Your task to perform on an android device: Add "macbook air" to the cart on costco Image 0: 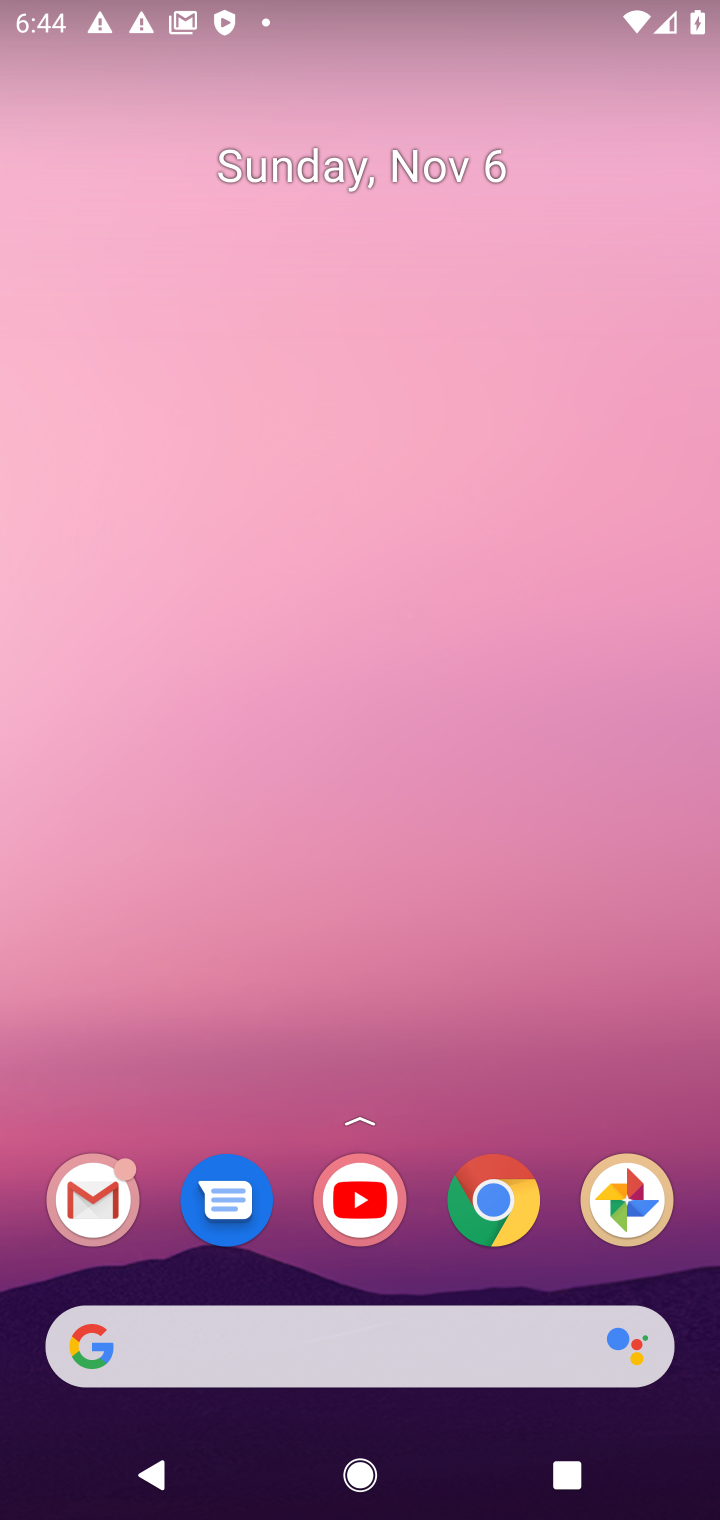
Step 0: drag from (407, 1219) to (422, 119)
Your task to perform on an android device: Add "macbook air" to the cart on costco Image 1: 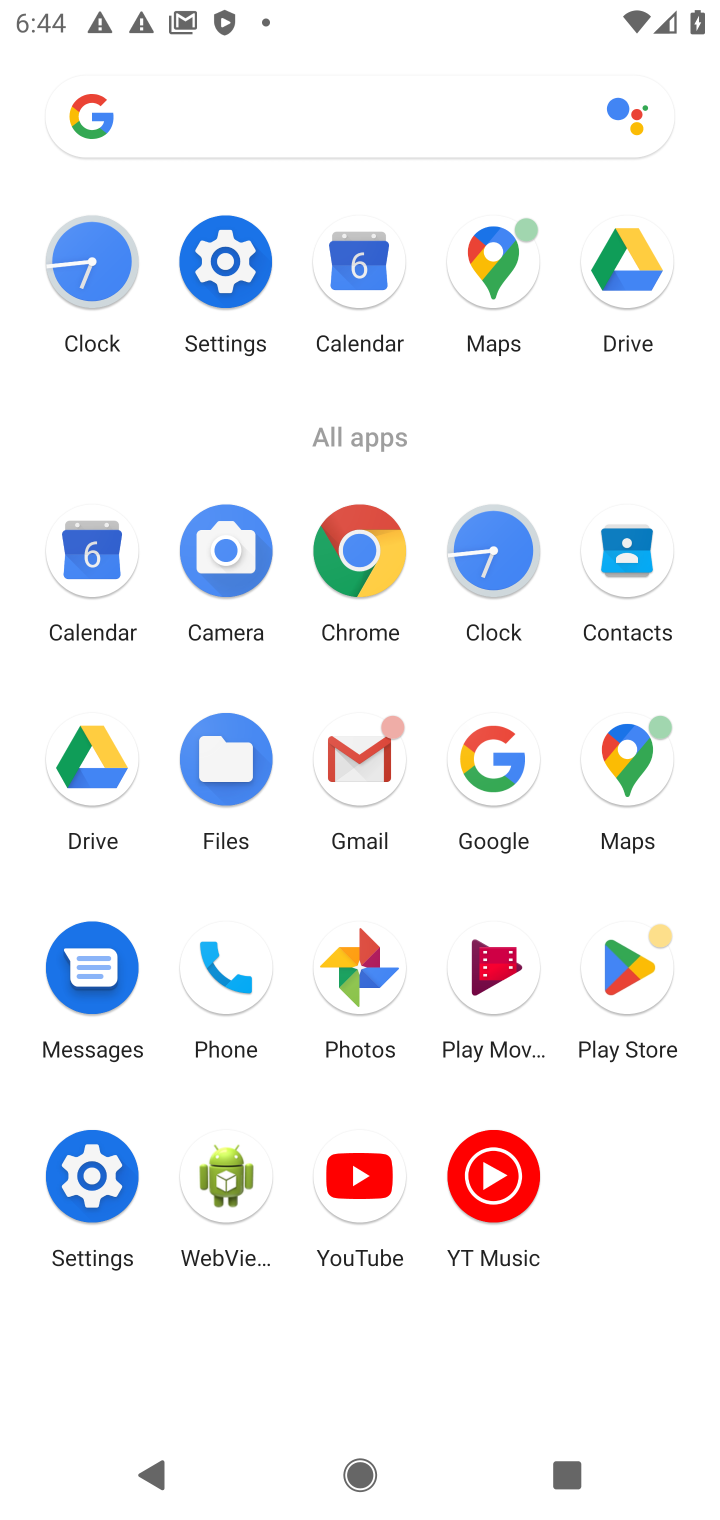
Step 1: click (495, 748)
Your task to perform on an android device: Add "macbook air" to the cart on costco Image 2: 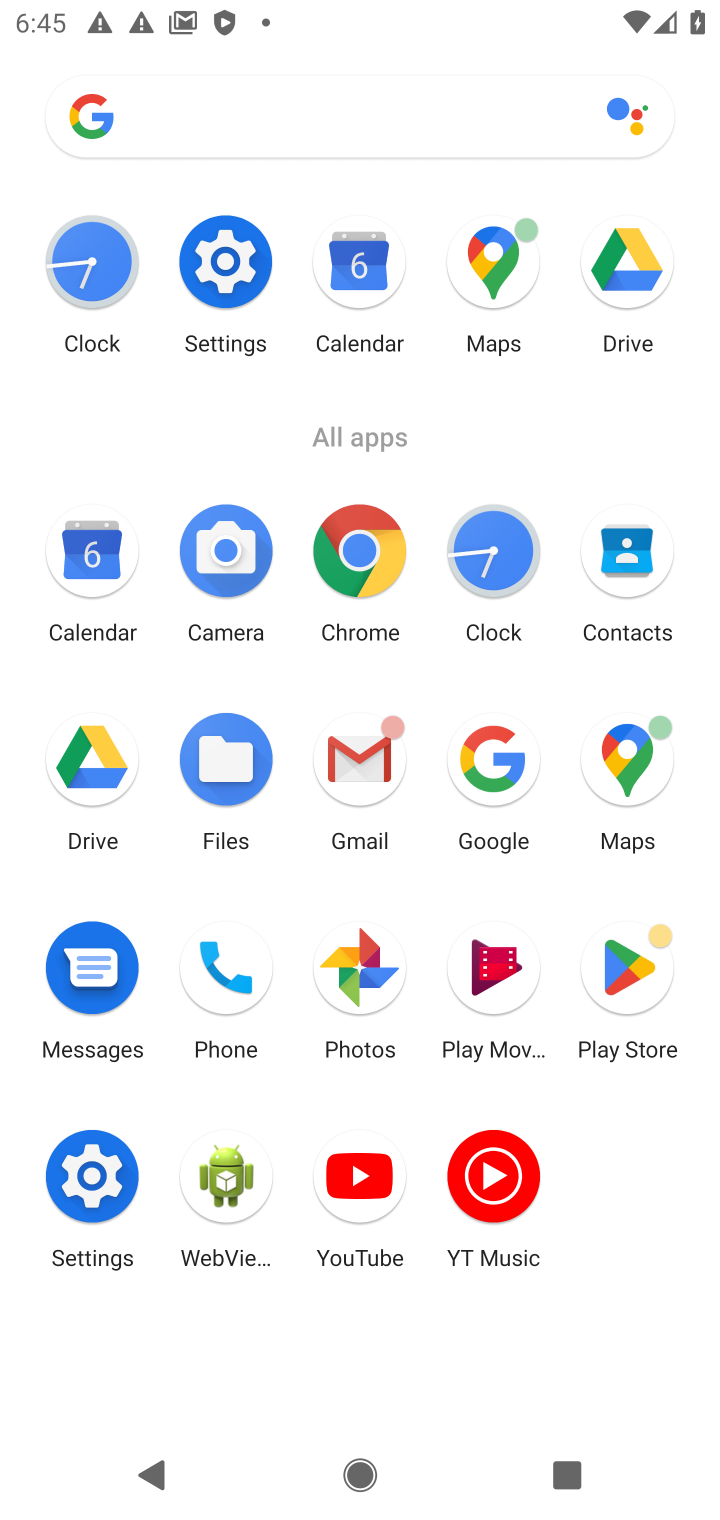
Step 2: click (491, 749)
Your task to perform on an android device: Add "macbook air" to the cart on costco Image 3: 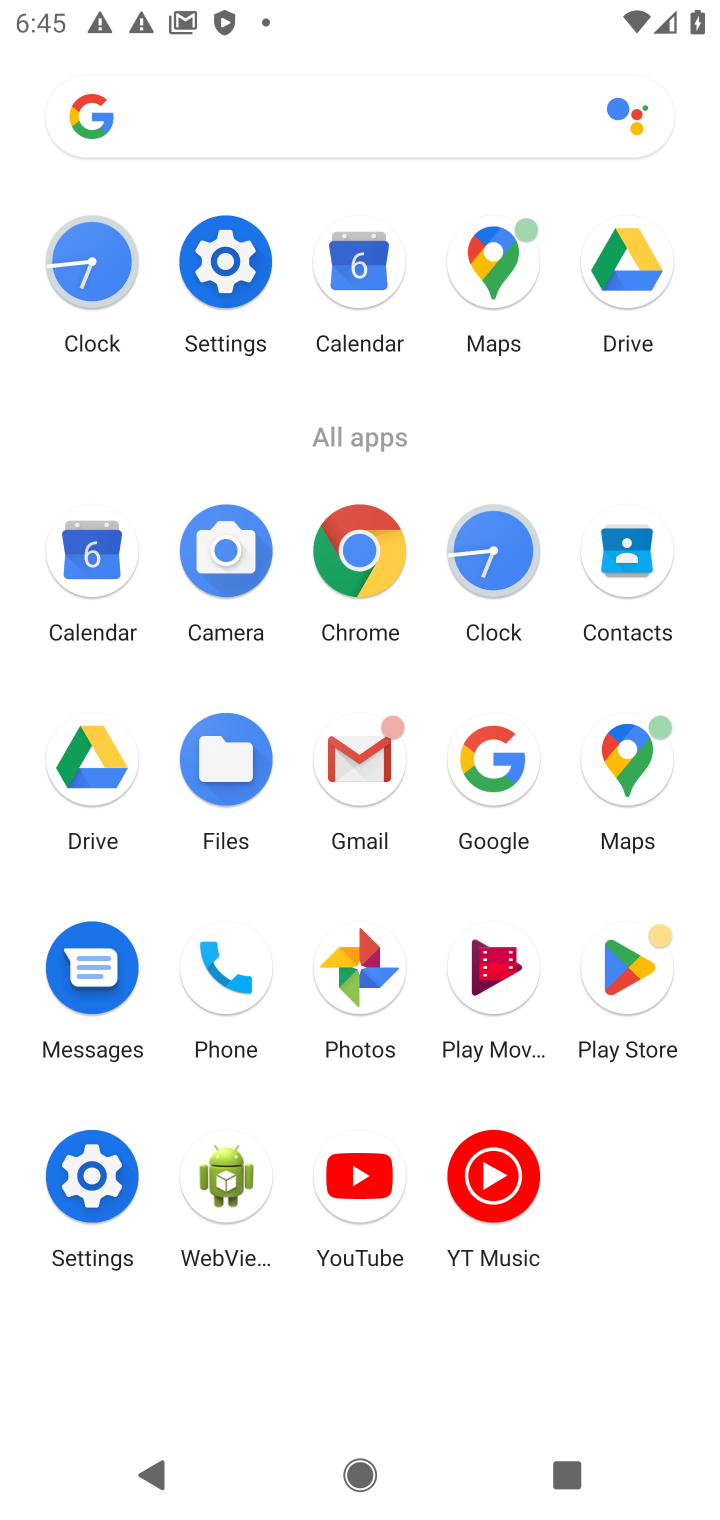
Step 3: click (491, 749)
Your task to perform on an android device: Add "macbook air" to the cart on costco Image 4: 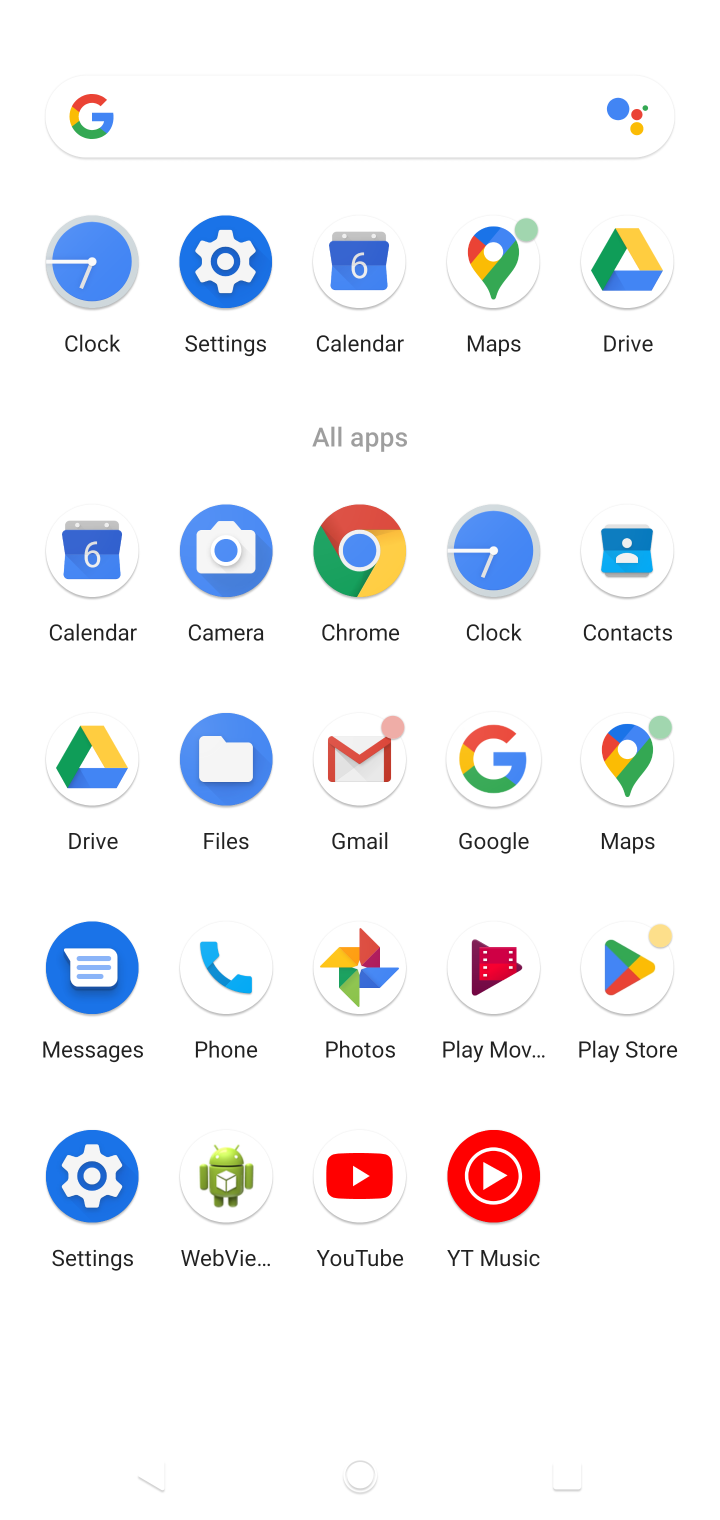
Step 4: click (491, 749)
Your task to perform on an android device: Add "macbook air" to the cart on costco Image 5: 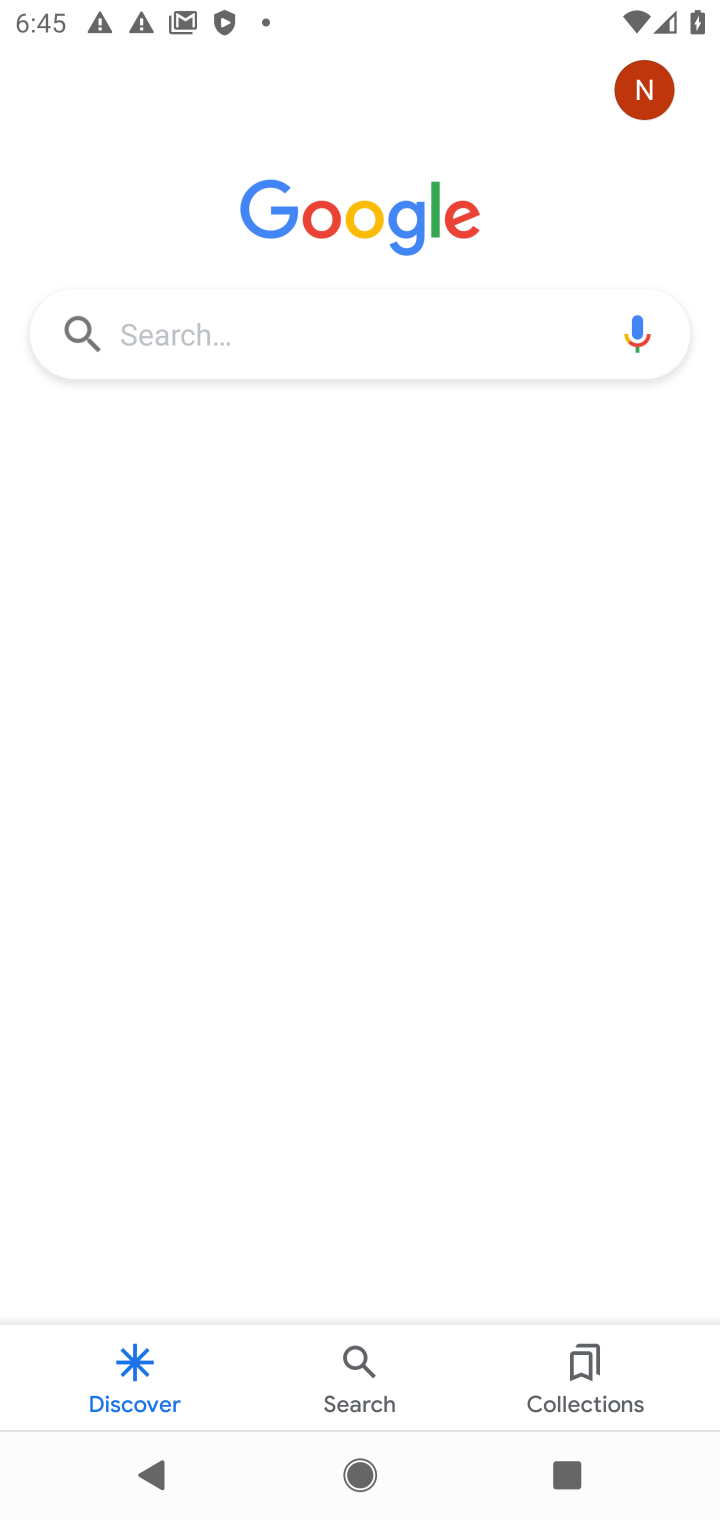
Step 5: click (335, 340)
Your task to perform on an android device: Add "macbook air" to the cart on costco Image 6: 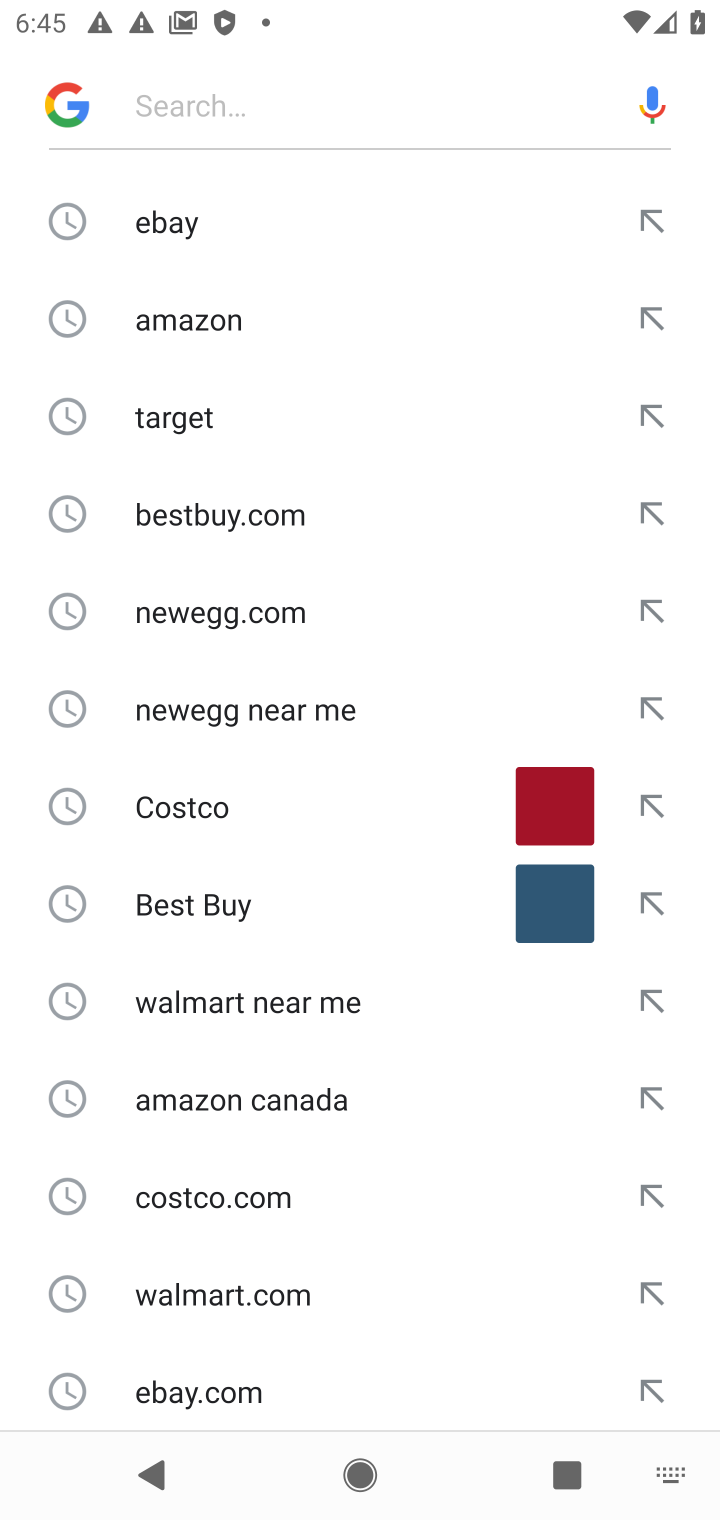
Step 6: type "costco "
Your task to perform on an android device: Add "macbook air" to the cart on costco Image 7: 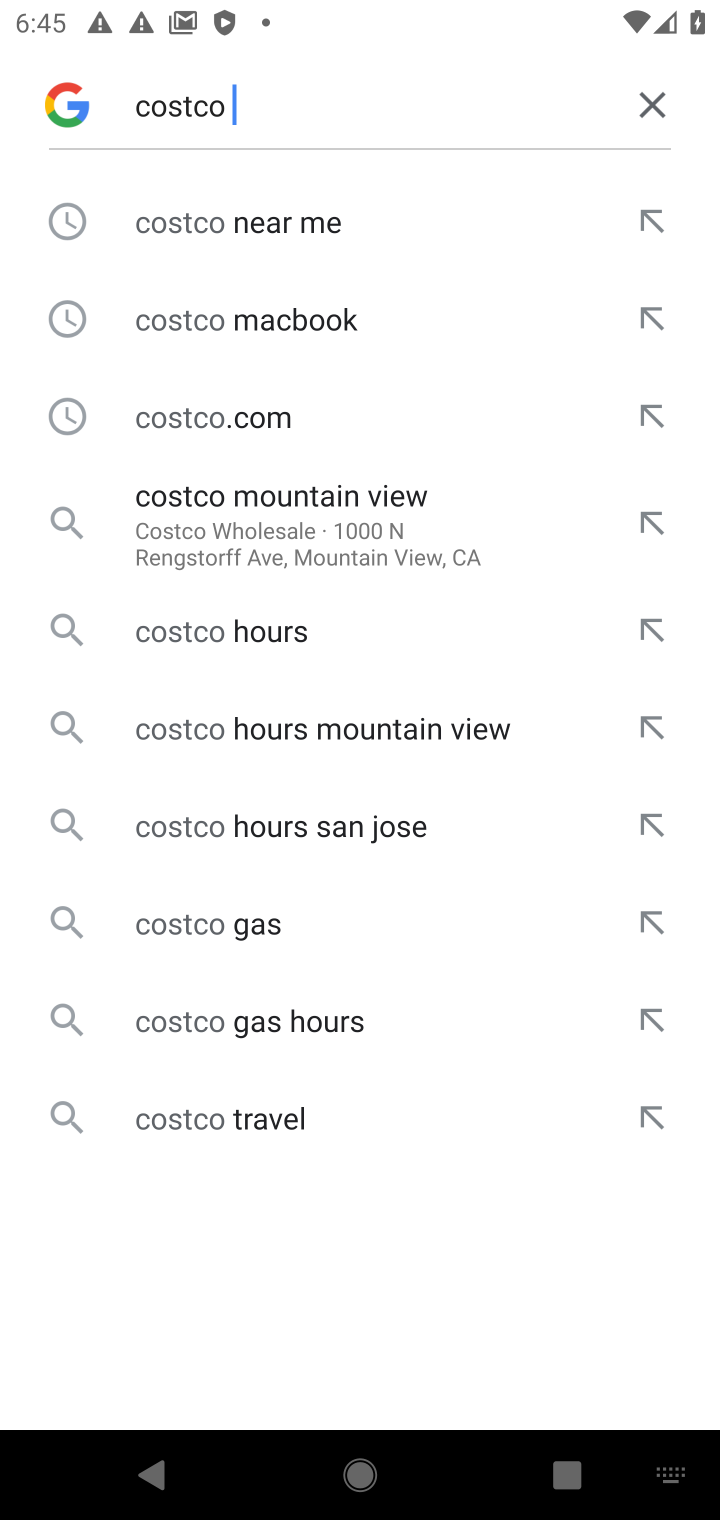
Step 7: click (215, 222)
Your task to perform on an android device: Add "macbook air" to the cart on costco Image 8: 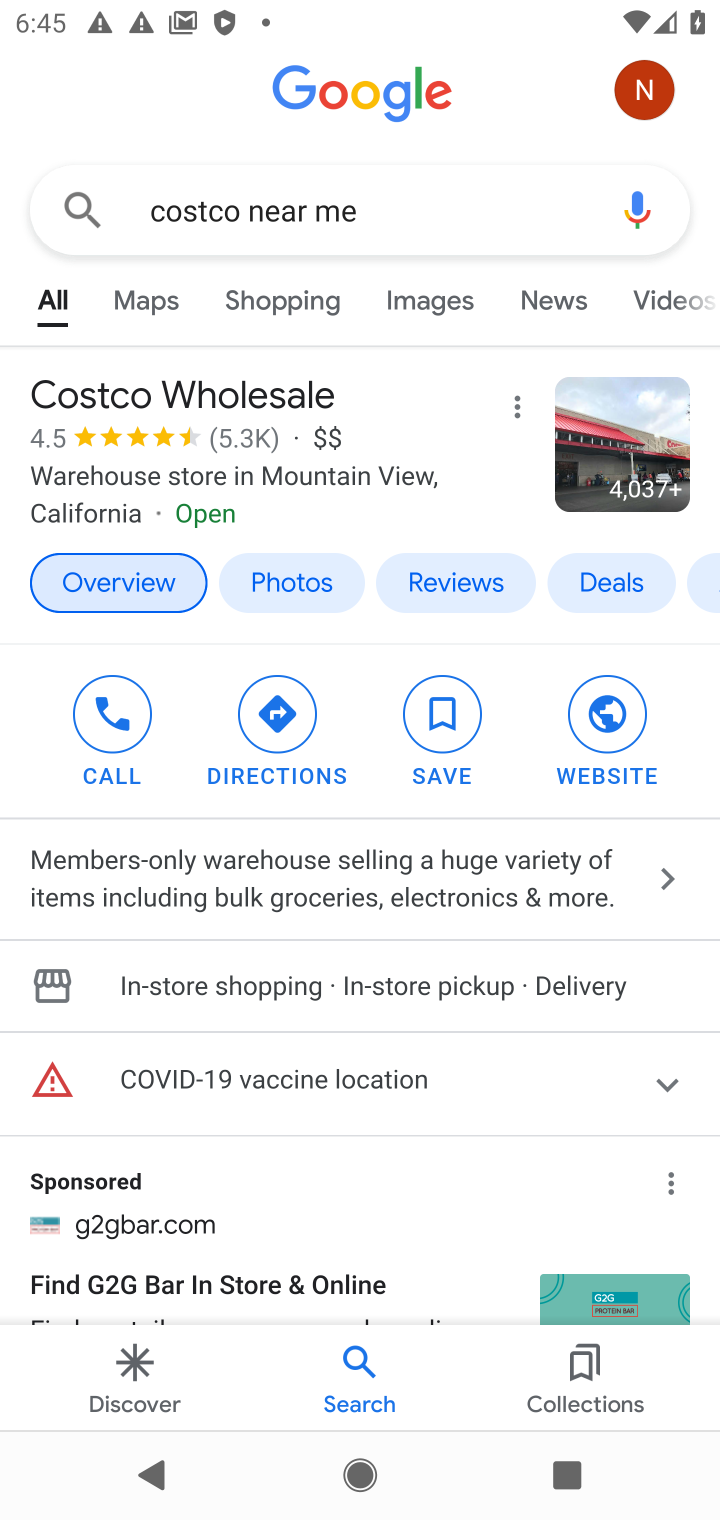
Step 8: drag from (295, 1243) to (396, 456)
Your task to perform on an android device: Add "macbook air" to the cart on costco Image 9: 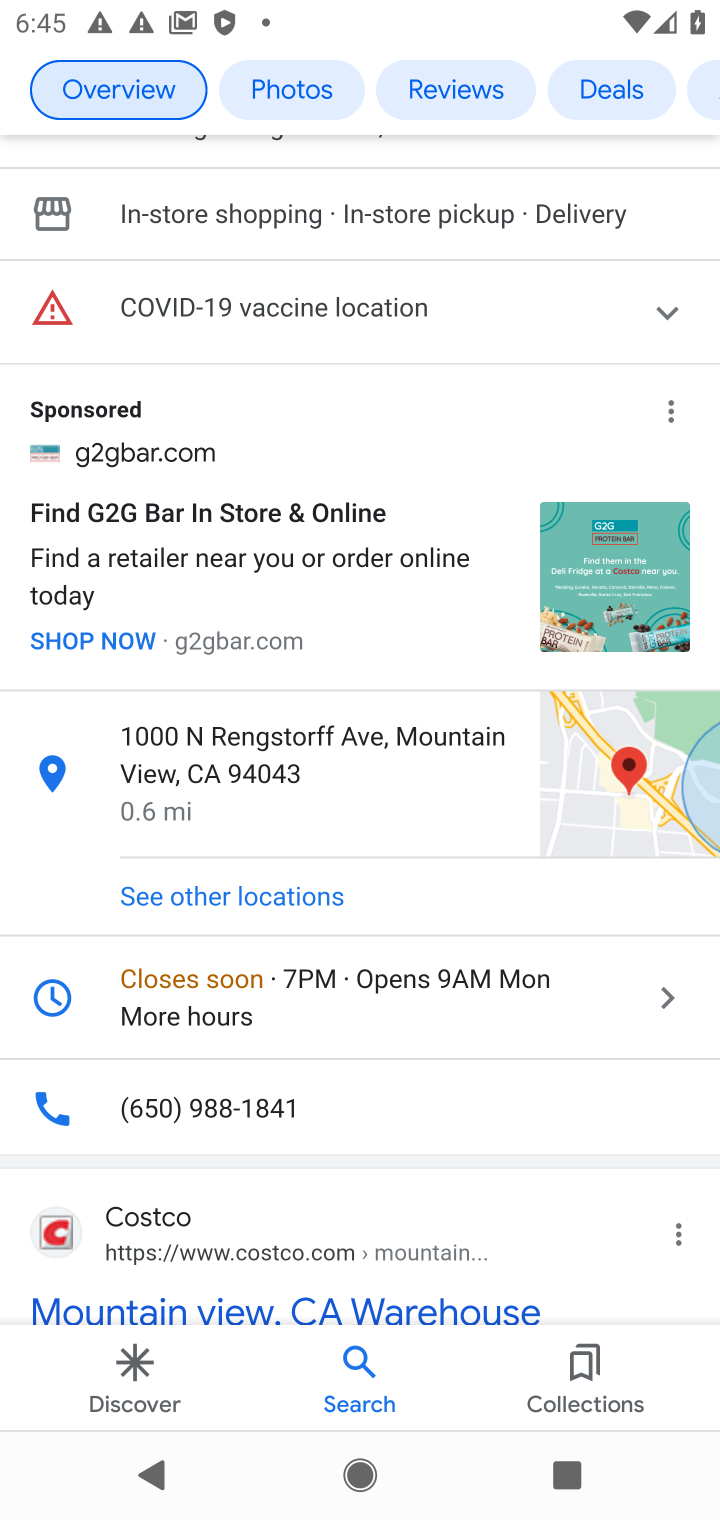
Step 9: drag from (232, 1142) to (282, 651)
Your task to perform on an android device: Add "macbook air" to the cart on costco Image 10: 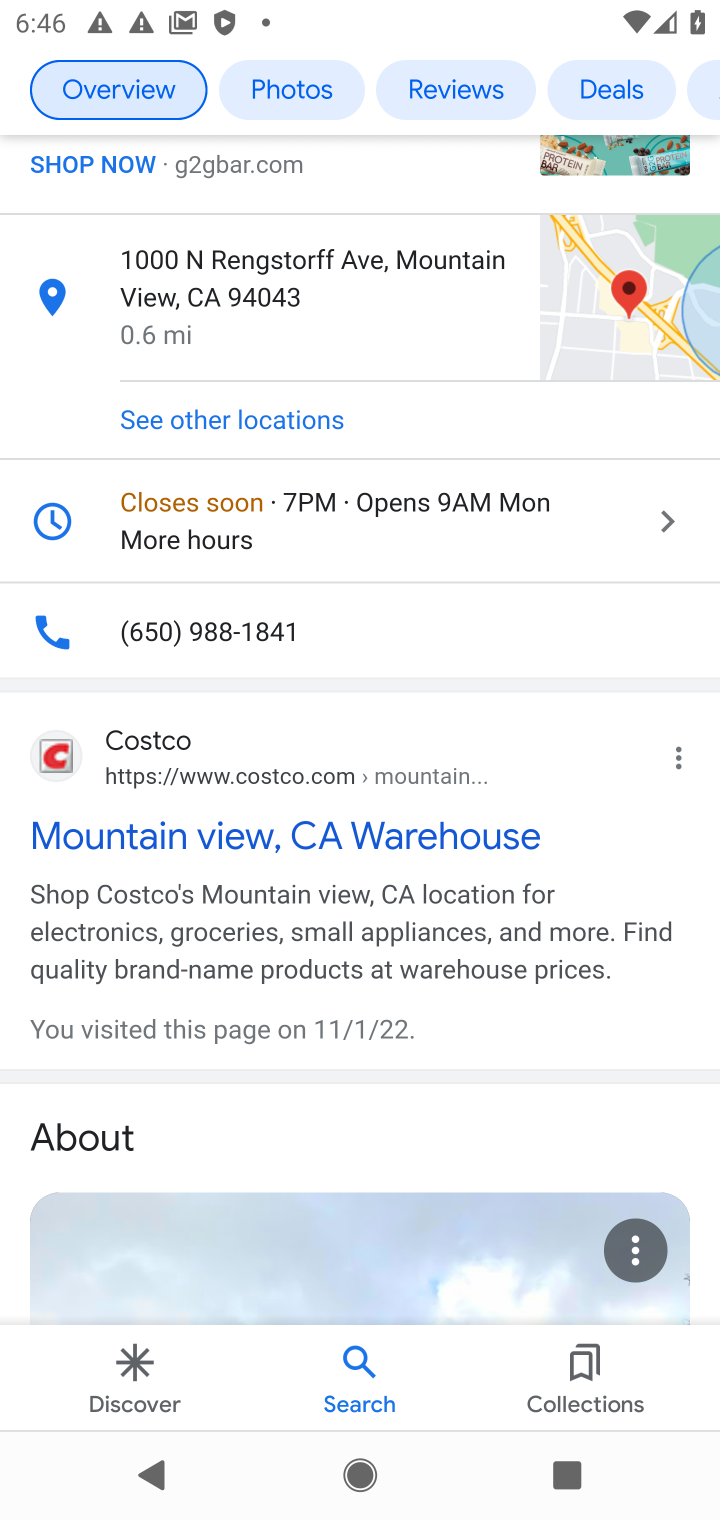
Step 10: click (58, 746)
Your task to perform on an android device: Add "macbook air" to the cart on costco Image 11: 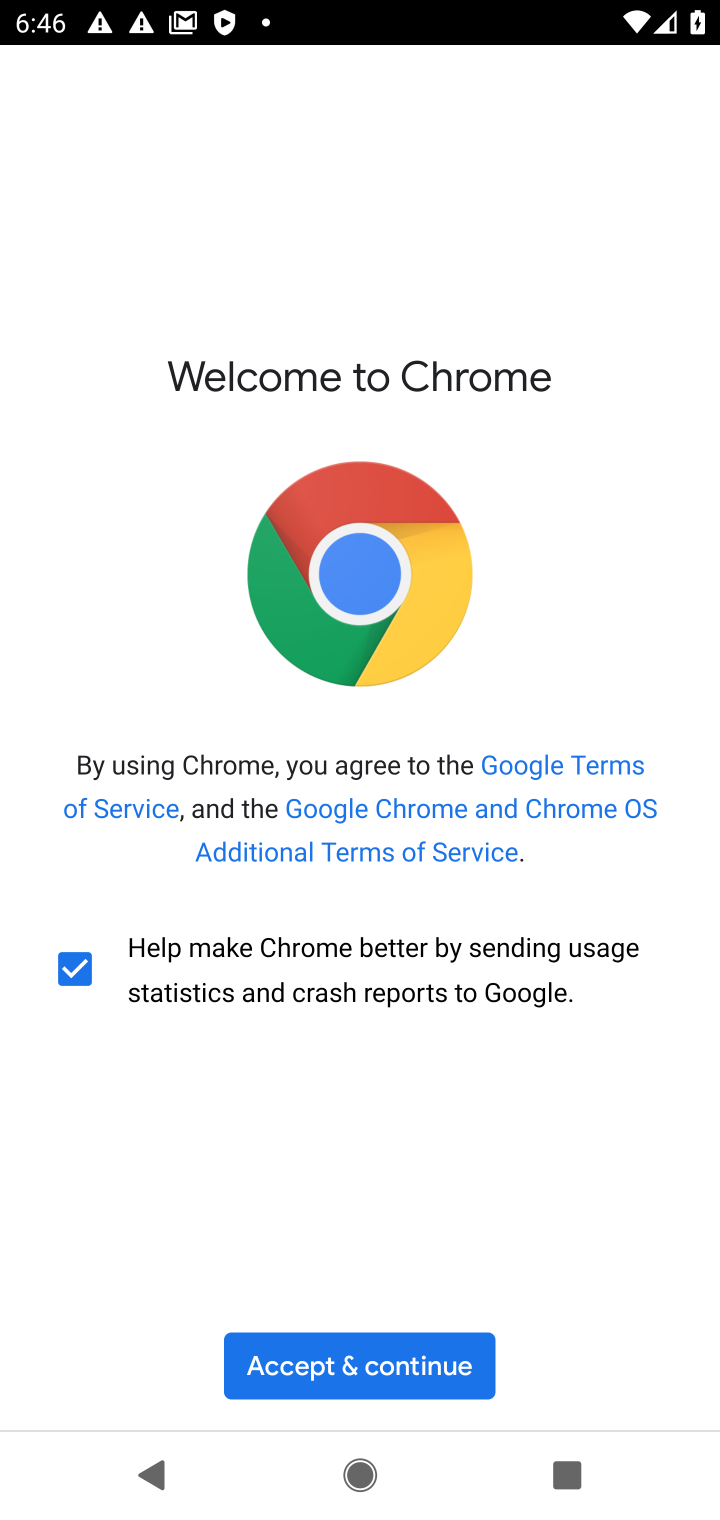
Step 11: click (405, 1327)
Your task to perform on an android device: Add "macbook air" to the cart on costco Image 12: 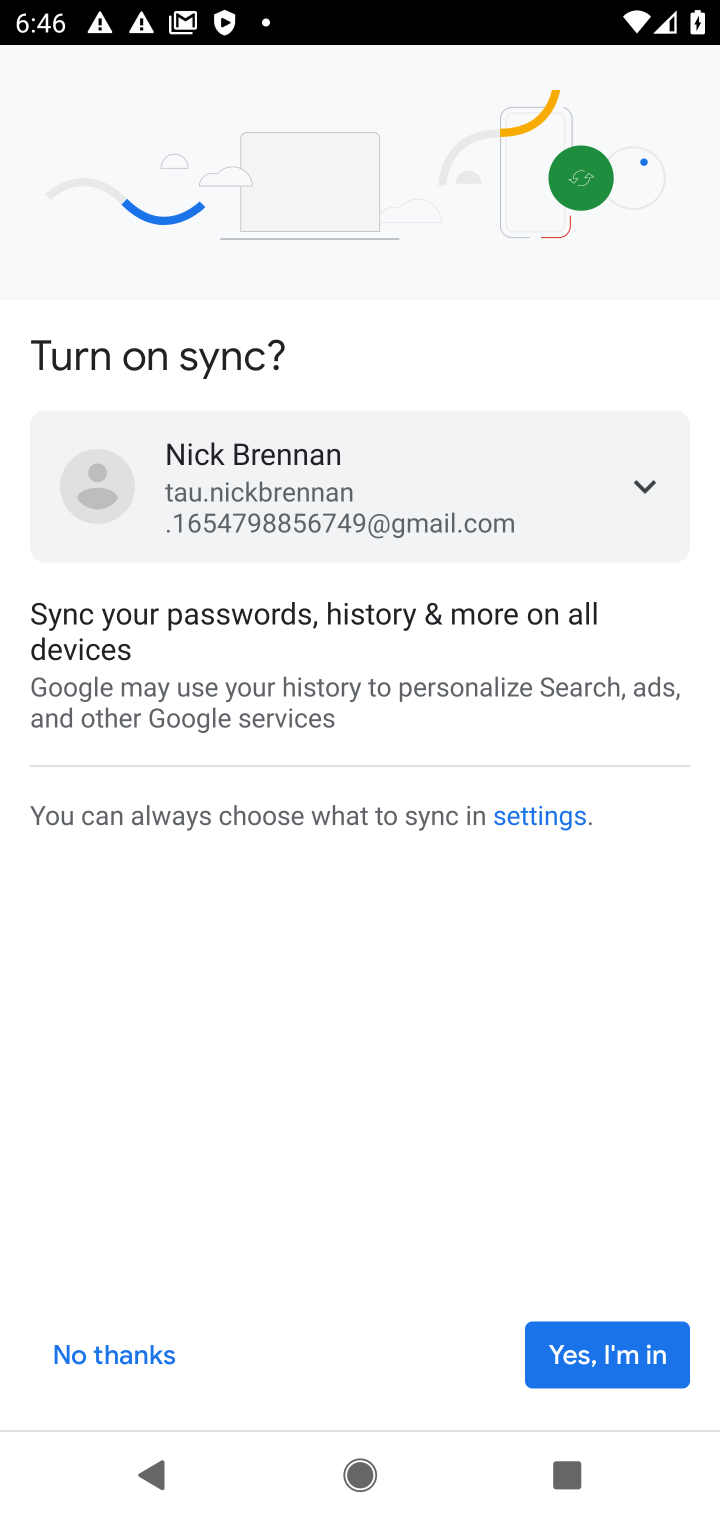
Step 12: click (90, 1358)
Your task to perform on an android device: Add "macbook air" to the cart on costco Image 13: 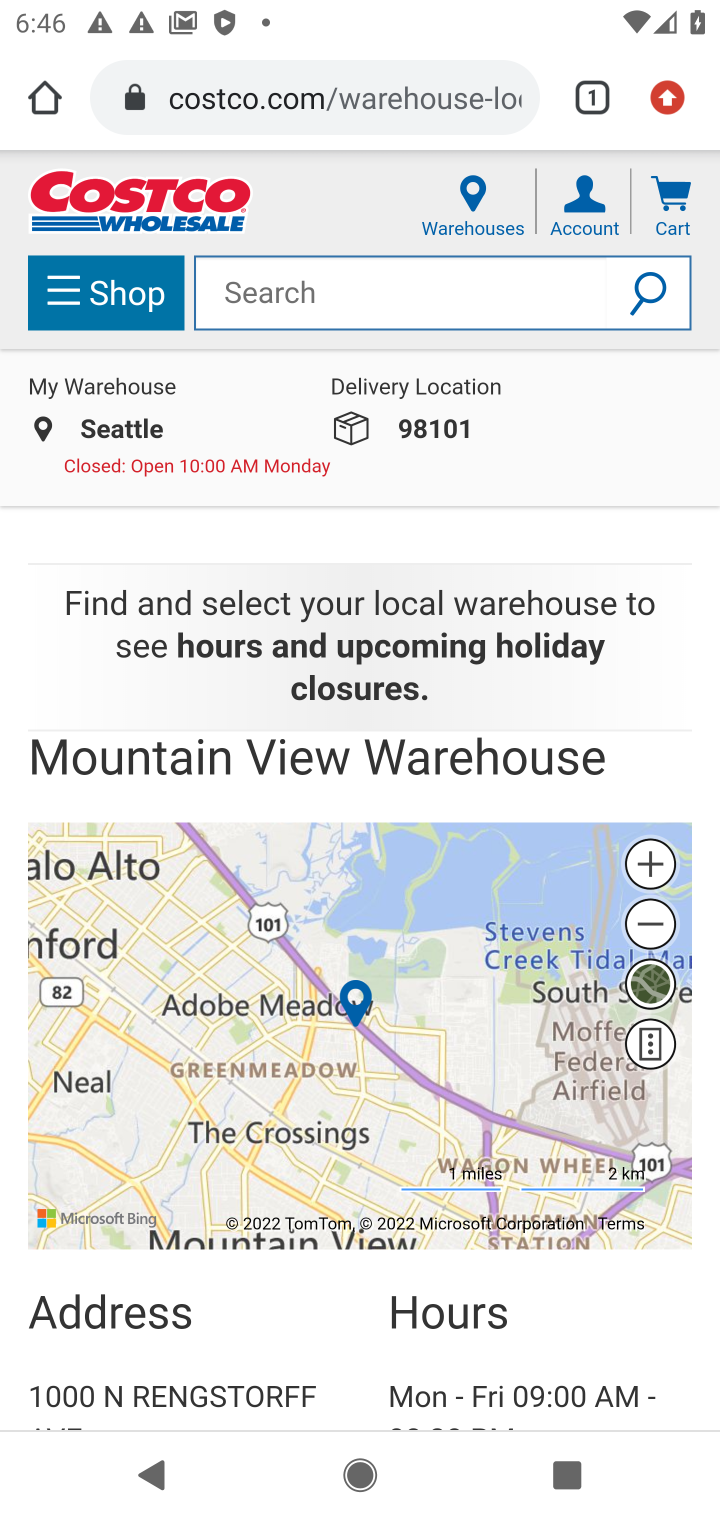
Step 13: click (438, 292)
Your task to perform on an android device: Add "macbook air" to the cart on costco Image 14: 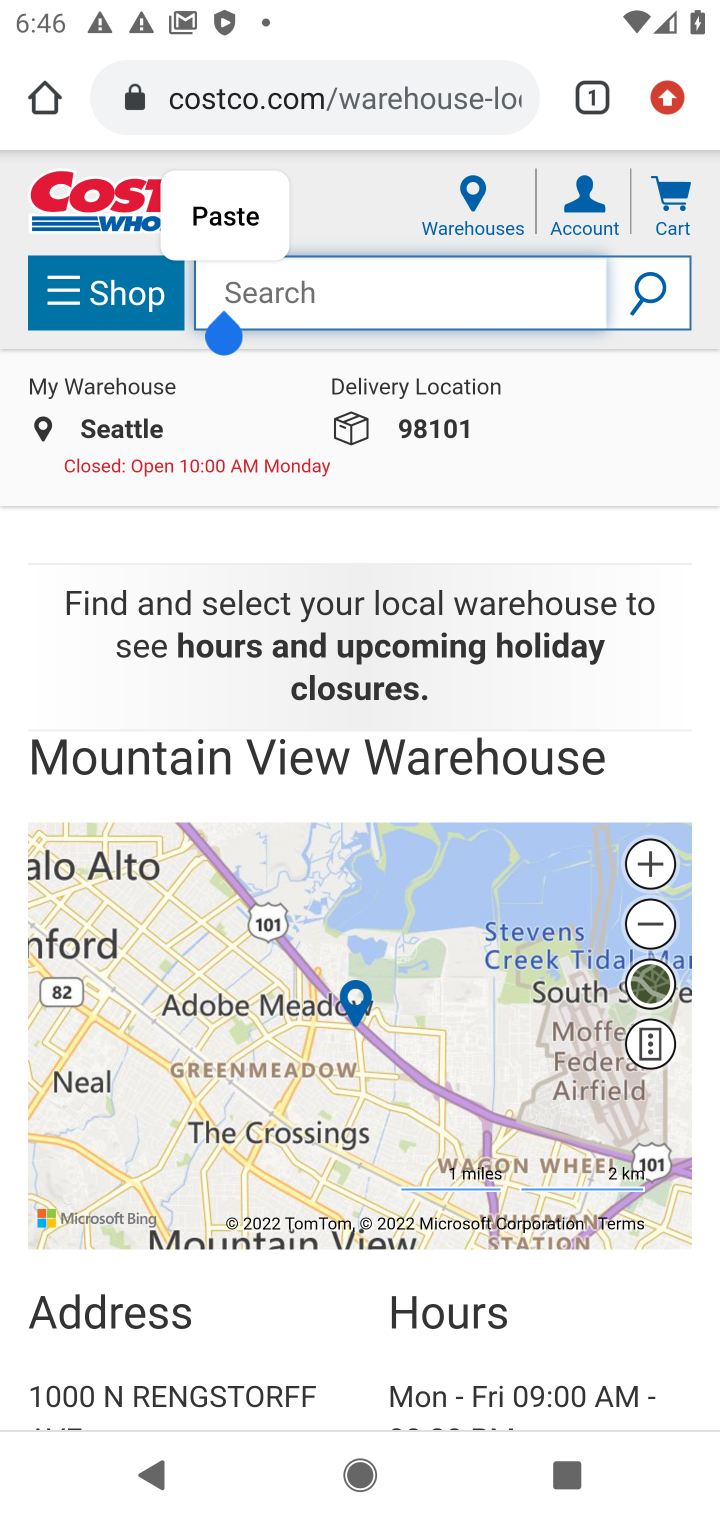
Step 14: click (330, 280)
Your task to perform on an android device: Add "macbook air" to the cart on costco Image 15: 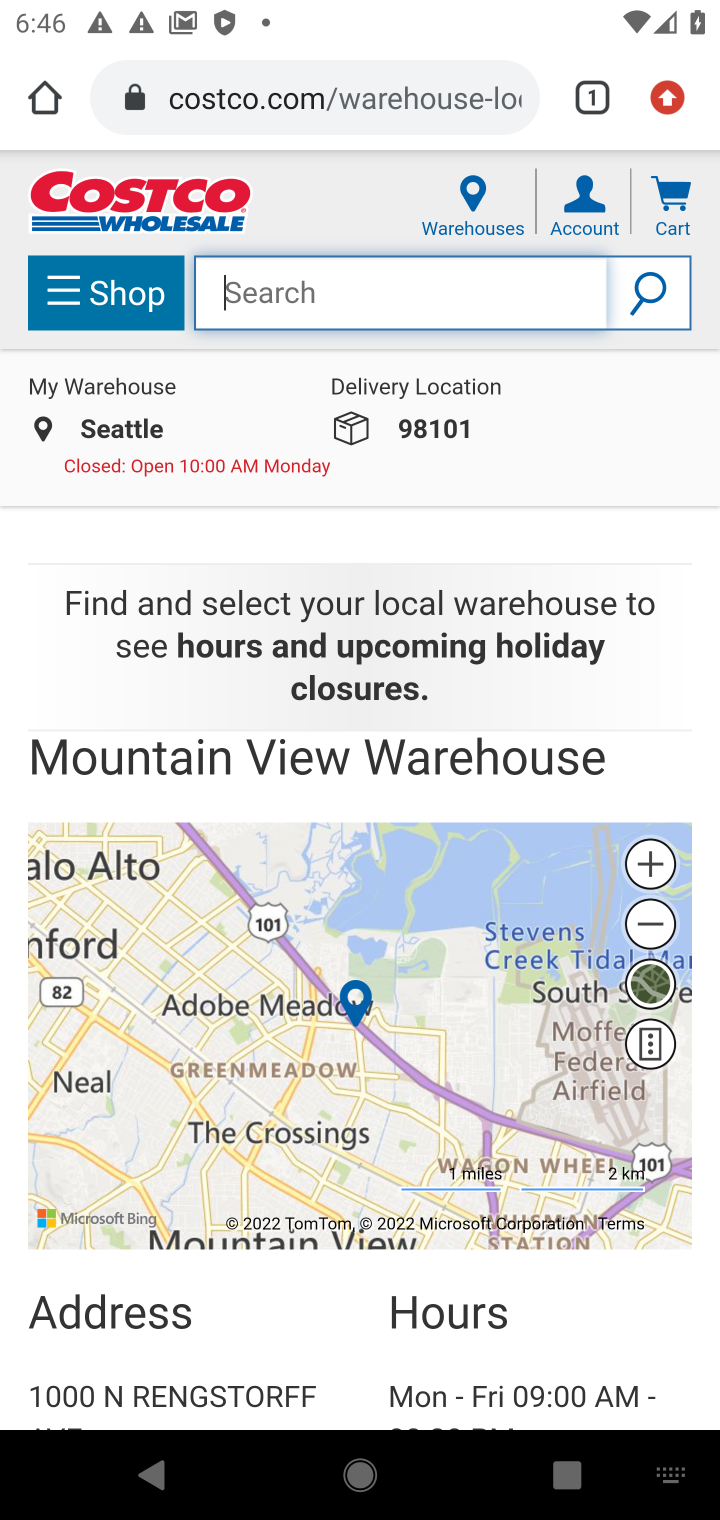
Step 15: type "macbook air "
Your task to perform on an android device: Add "macbook air" to the cart on costco Image 16: 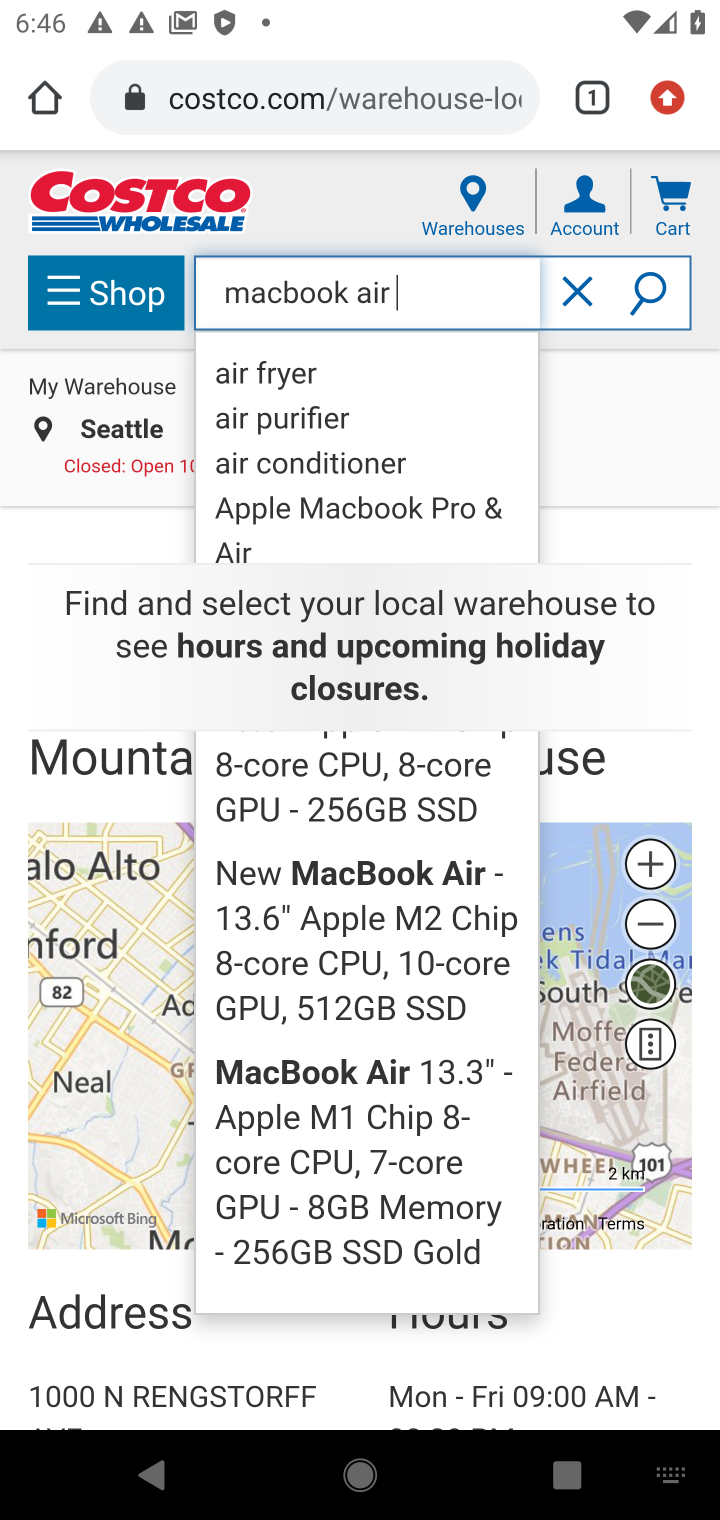
Step 16: click (664, 285)
Your task to perform on an android device: Add "macbook air" to the cart on costco Image 17: 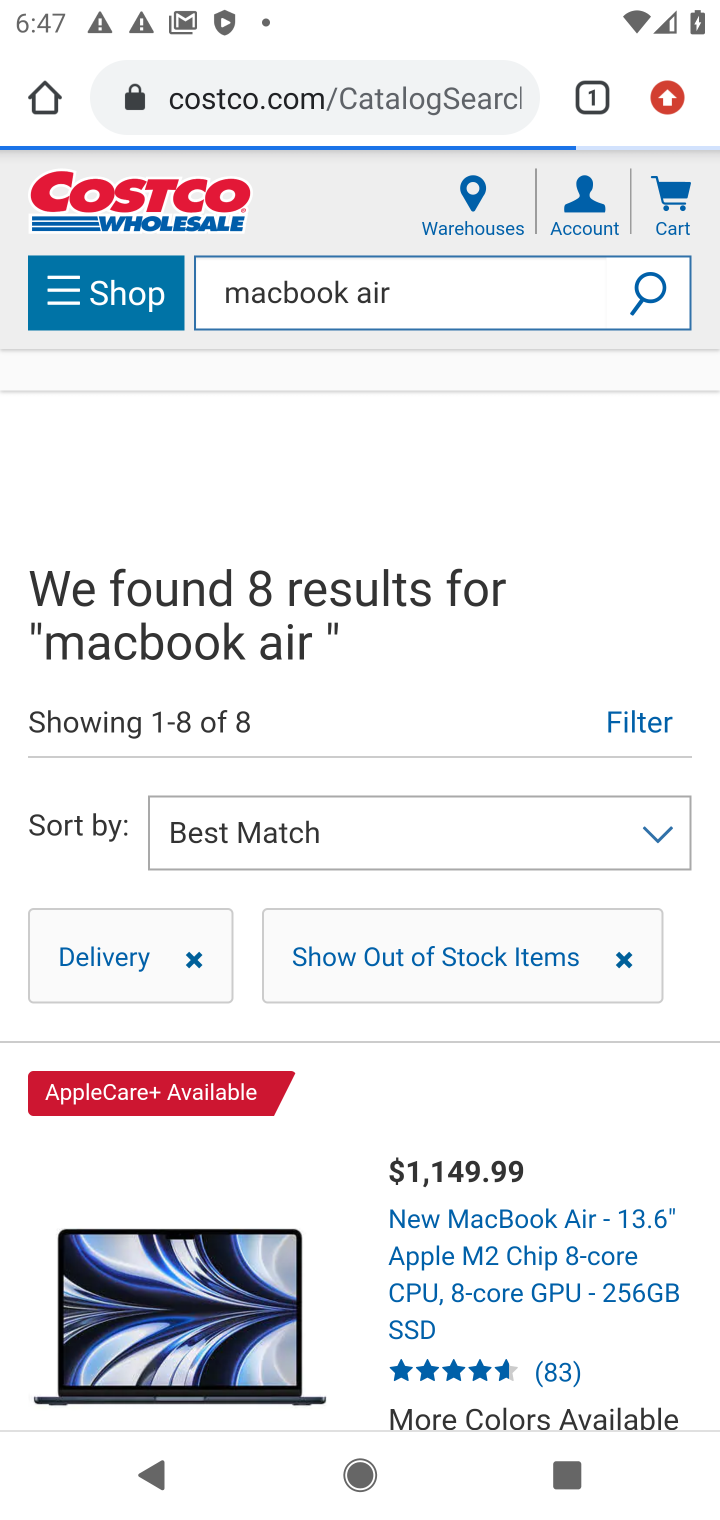
Step 17: drag from (296, 1270) to (266, 629)
Your task to perform on an android device: Add "macbook air" to the cart on costco Image 18: 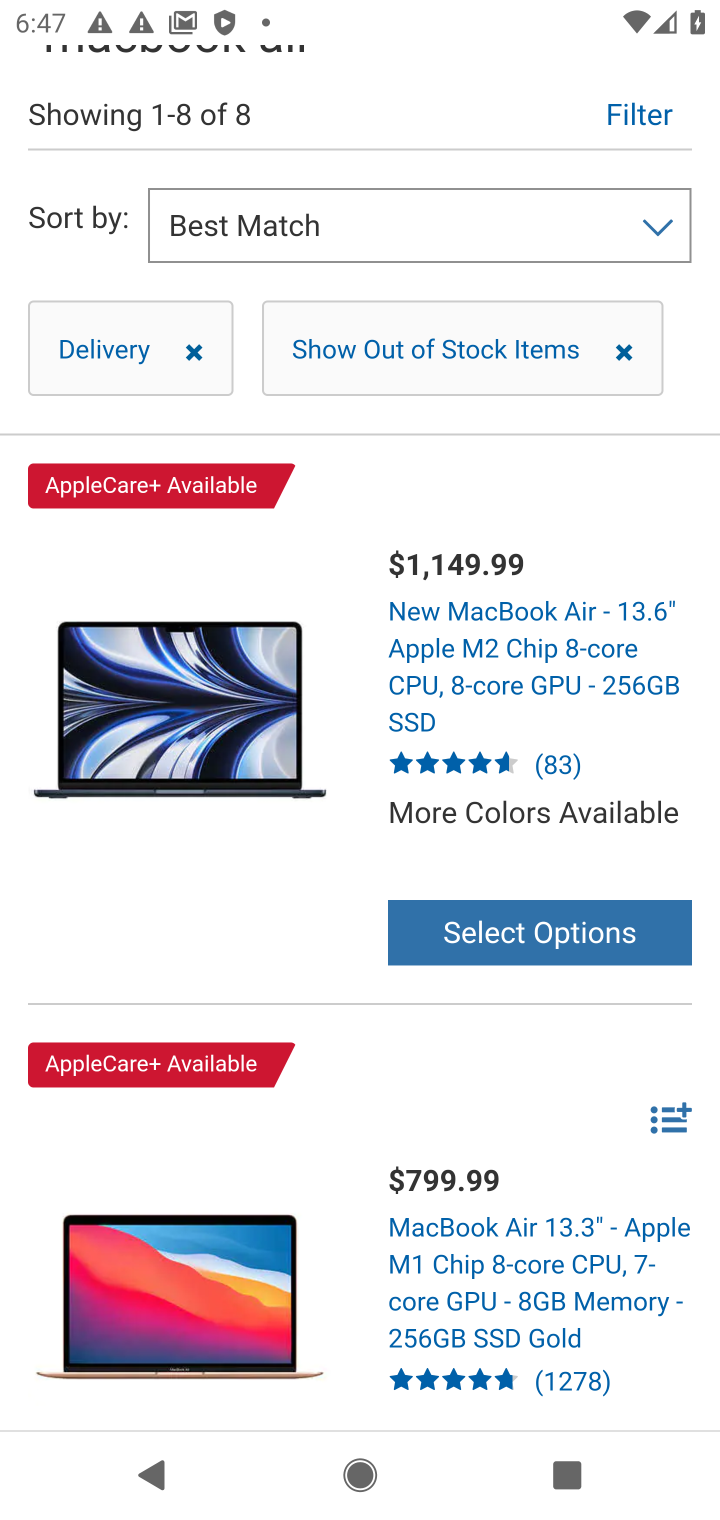
Step 18: drag from (328, 1183) to (373, 721)
Your task to perform on an android device: Add "macbook air" to the cart on costco Image 19: 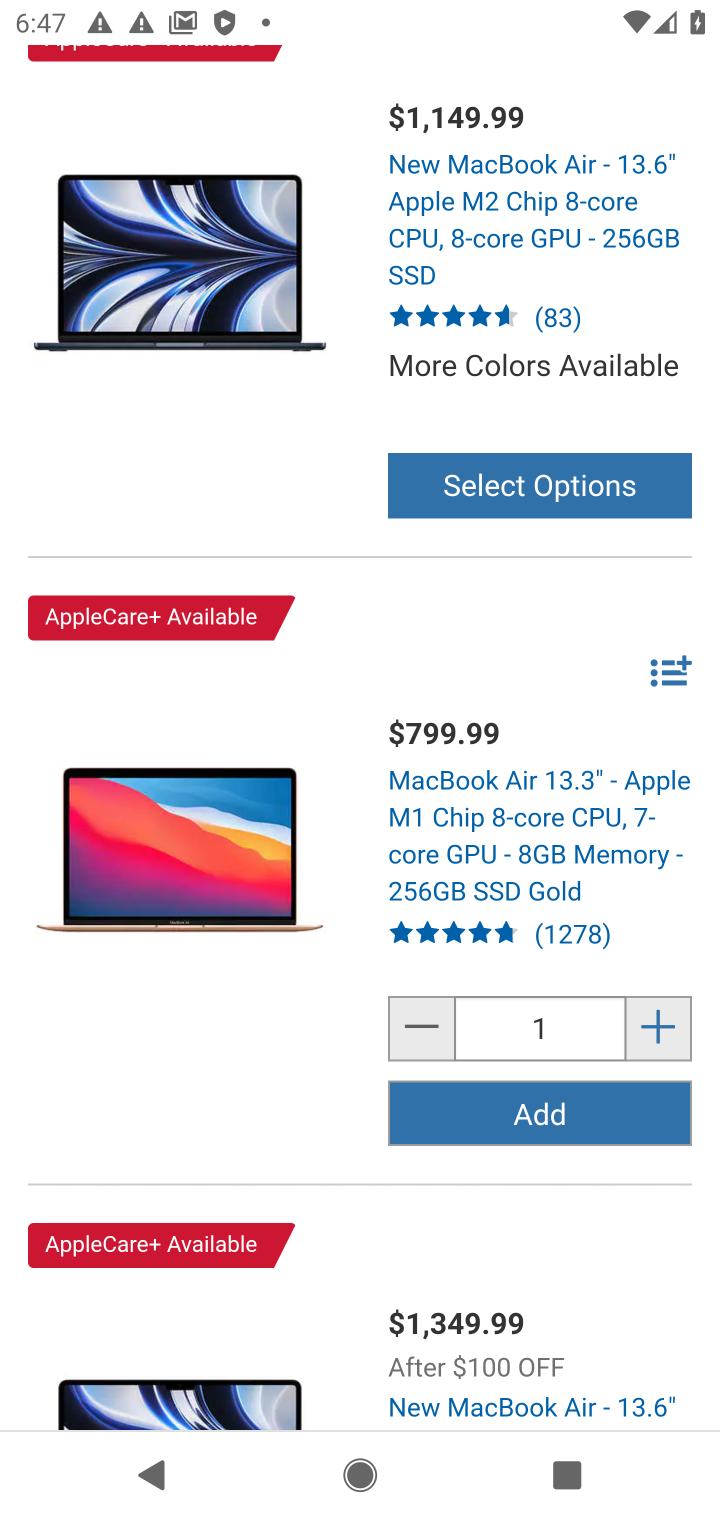
Step 19: click (519, 1107)
Your task to perform on an android device: Add "macbook air" to the cart on costco Image 20: 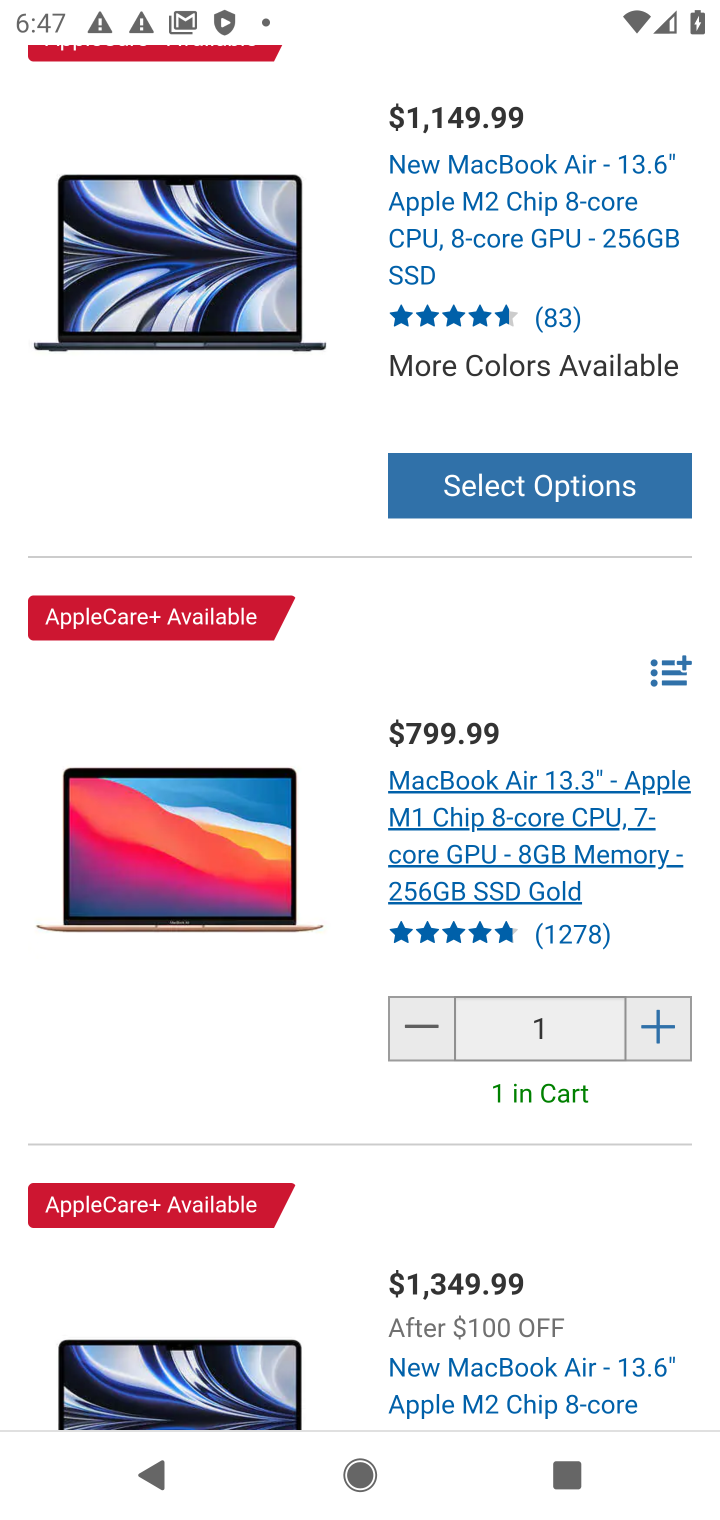
Step 20: task complete